Your task to perform on an android device: Search for Italian restaurants on Maps Image 0: 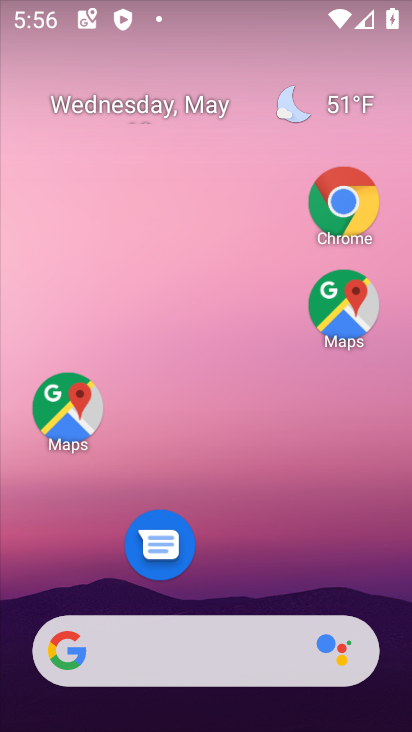
Step 0: drag from (295, 551) to (166, 167)
Your task to perform on an android device: Search for Italian restaurants on Maps Image 1: 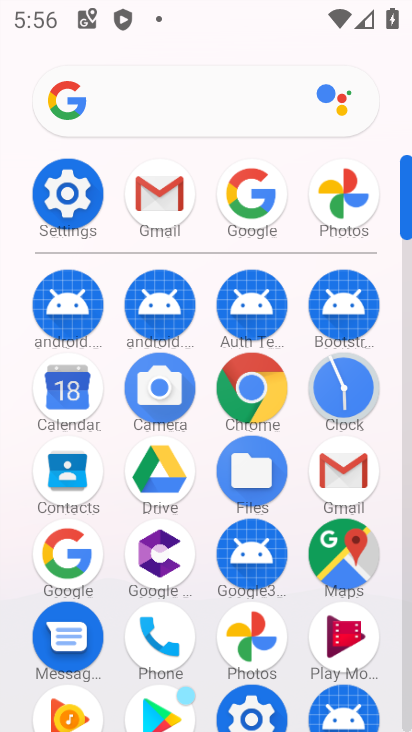
Step 1: click (332, 549)
Your task to perform on an android device: Search for Italian restaurants on Maps Image 2: 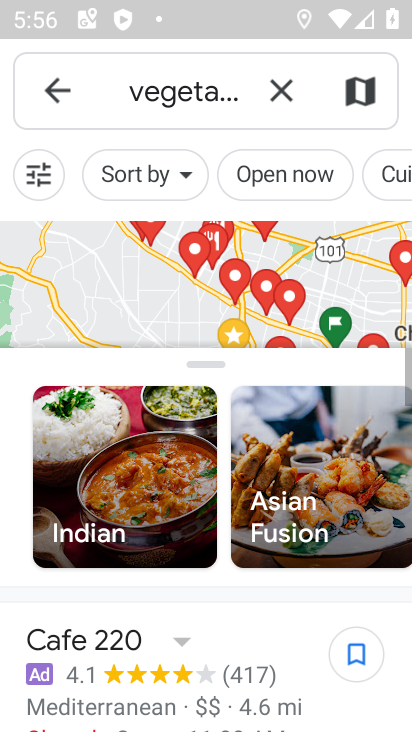
Step 2: click (280, 91)
Your task to perform on an android device: Search for Italian restaurants on Maps Image 3: 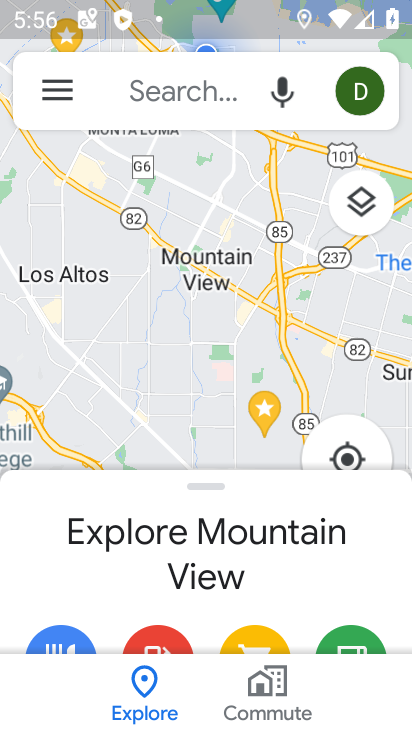
Step 3: click (176, 89)
Your task to perform on an android device: Search for Italian restaurants on Maps Image 4: 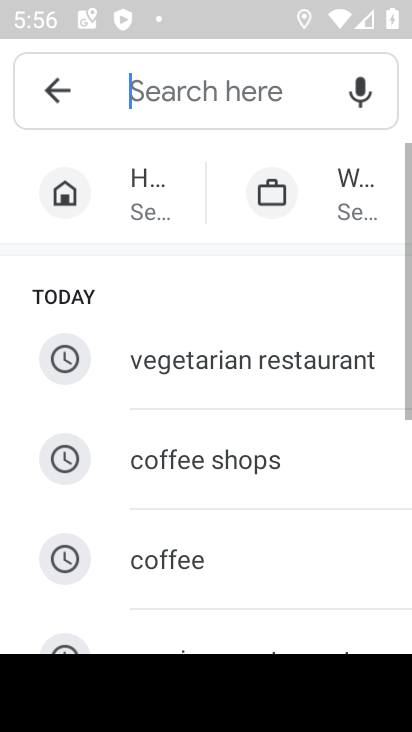
Step 4: drag from (264, 533) to (238, 128)
Your task to perform on an android device: Search for Italian restaurants on Maps Image 5: 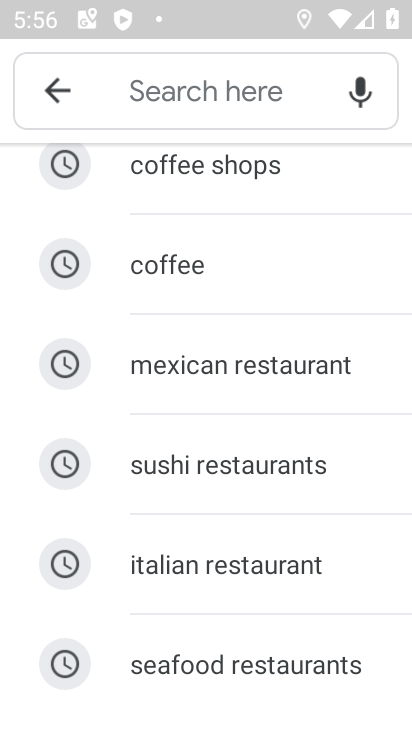
Step 5: click (212, 566)
Your task to perform on an android device: Search for Italian restaurants on Maps Image 6: 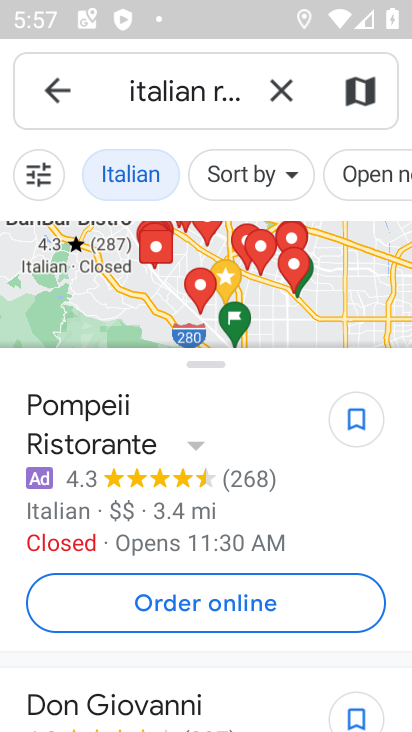
Step 6: task complete